Your task to perform on an android device: Search for seafood restaurants on Google Maps Image 0: 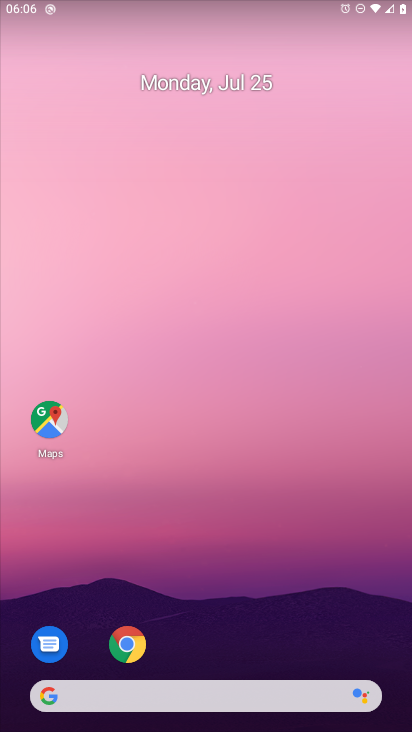
Step 0: drag from (227, 668) to (178, 168)
Your task to perform on an android device: Search for seafood restaurants on Google Maps Image 1: 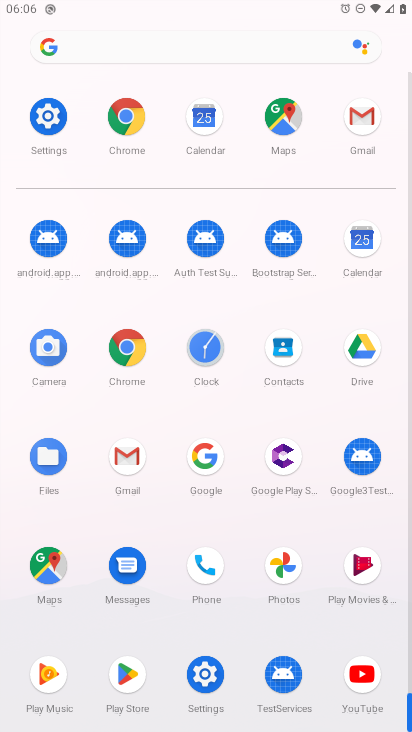
Step 1: click (43, 567)
Your task to perform on an android device: Search for seafood restaurants on Google Maps Image 2: 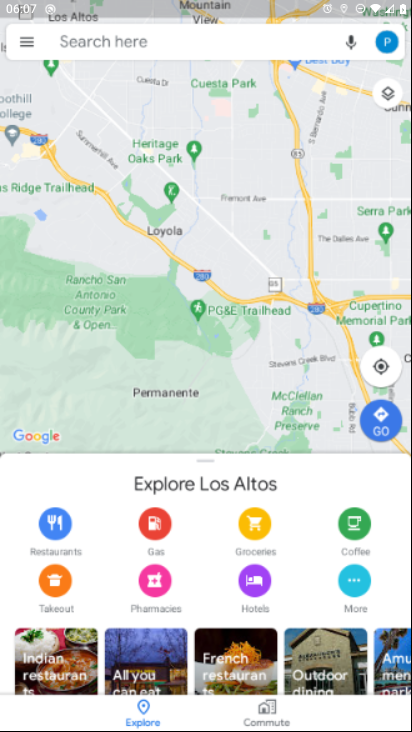
Step 2: click (154, 50)
Your task to perform on an android device: Search for seafood restaurants on Google Maps Image 3: 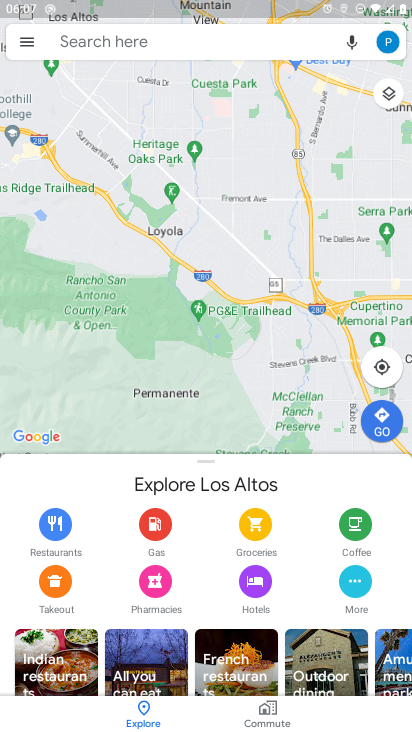
Step 3: click (132, 40)
Your task to perform on an android device: Search for seafood restaurants on Google Maps Image 4: 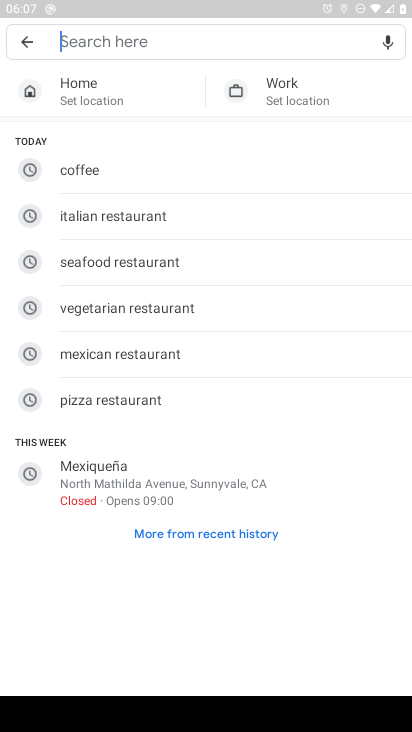
Step 4: click (121, 265)
Your task to perform on an android device: Search for seafood restaurants on Google Maps Image 5: 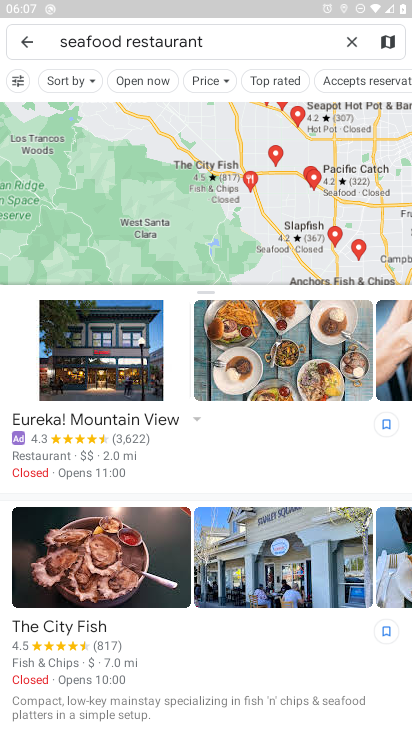
Step 5: task complete